Your task to perform on an android device: delete the emails in spam in the gmail app Image 0: 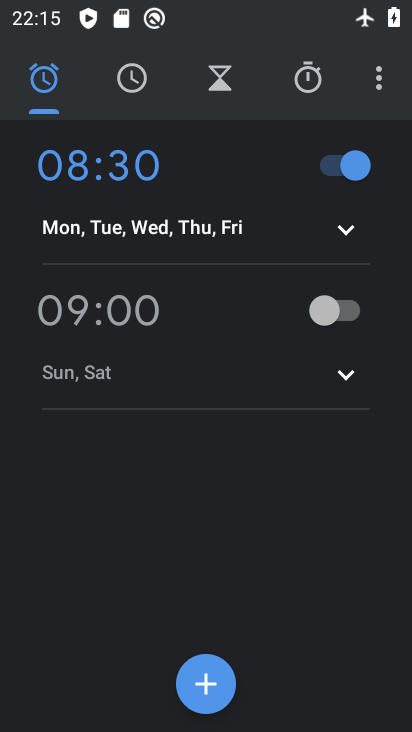
Step 0: press home button
Your task to perform on an android device: delete the emails in spam in the gmail app Image 1: 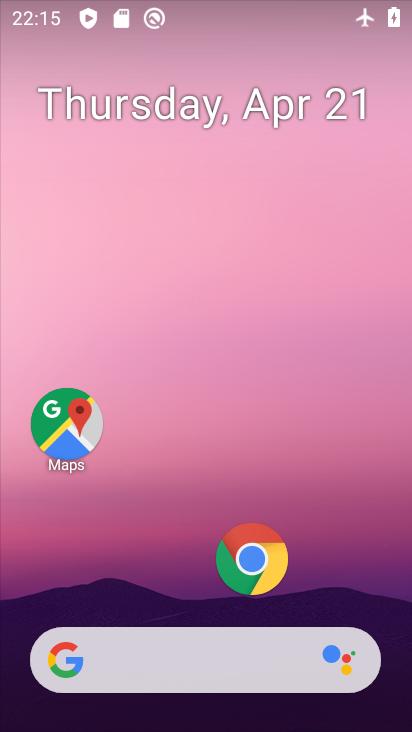
Step 1: drag from (138, 609) to (179, 163)
Your task to perform on an android device: delete the emails in spam in the gmail app Image 2: 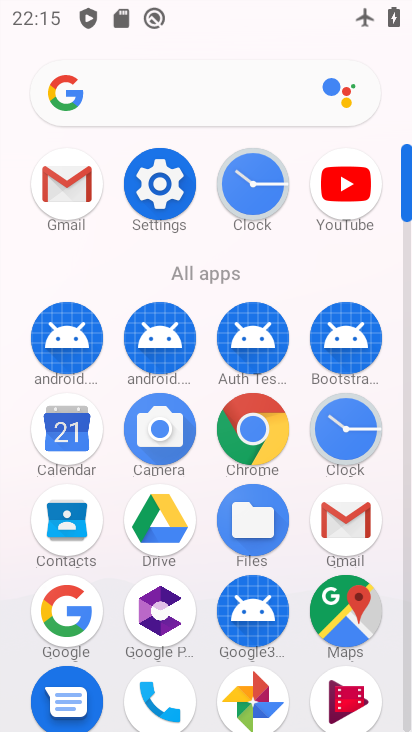
Step 2: click (357, 525)
Your task to perform on an android device: delete the emails in spam in the gmail app Image 3: 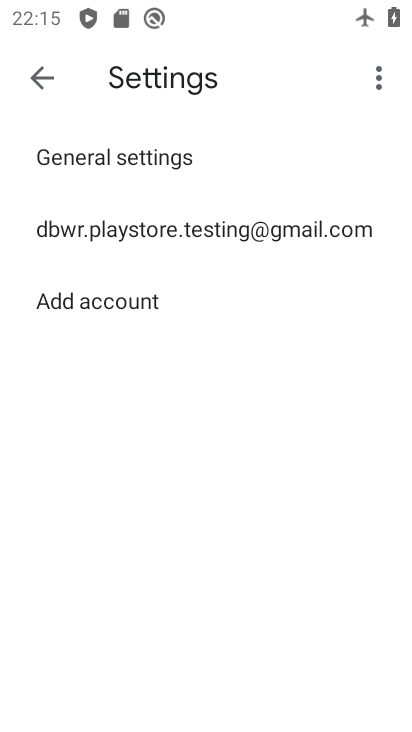
Step 3: click (195, 235)
Your task to perform on an android device: delete the emails in spam in the gmail app Image 4: 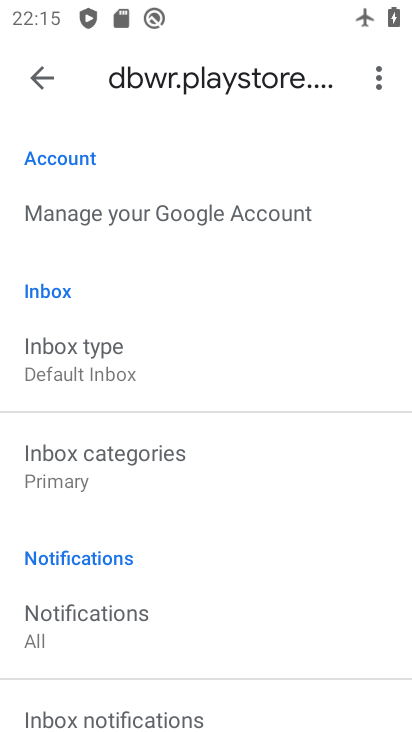
Step 4: drag from (118, 539) to (177, 272)
Your task to perform on an android device: delete the emails in spam in the gmail app Image 5: 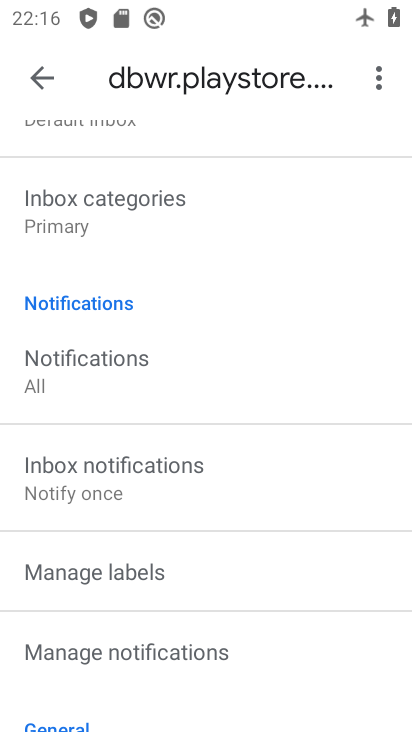
Step 5: click (38, 84)
Your task to perform on an android device: delete the emails in spam in the gmail app Image 6: 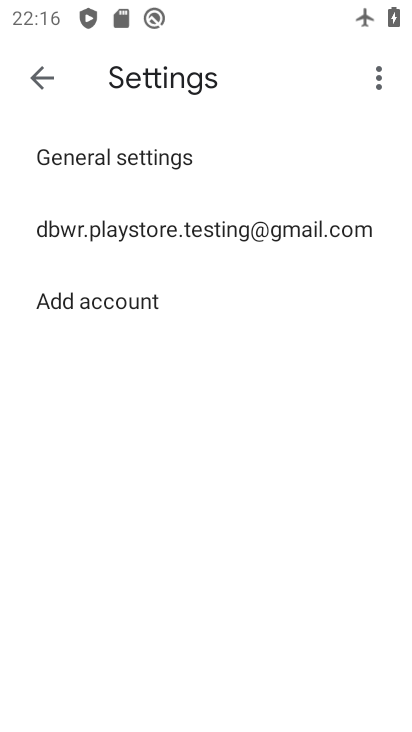
Step 6: click (31, 74)
Your task to perform on an android device: delete the emails in spam in the gmail app Image 7: 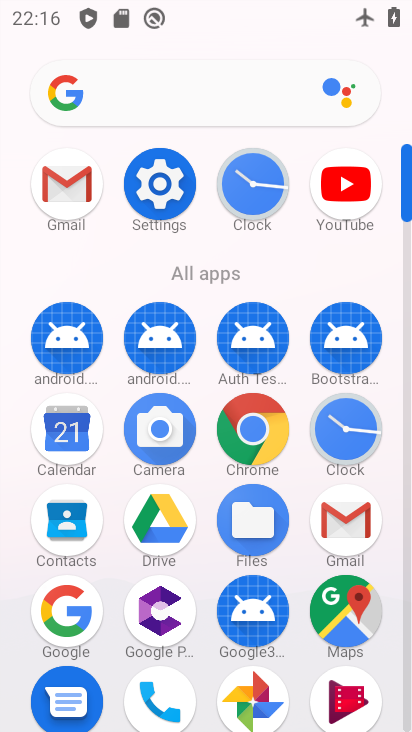
Step 7: press home button
Your task to perform on an android device: delete the emails in spam in the gmail app Image 8: 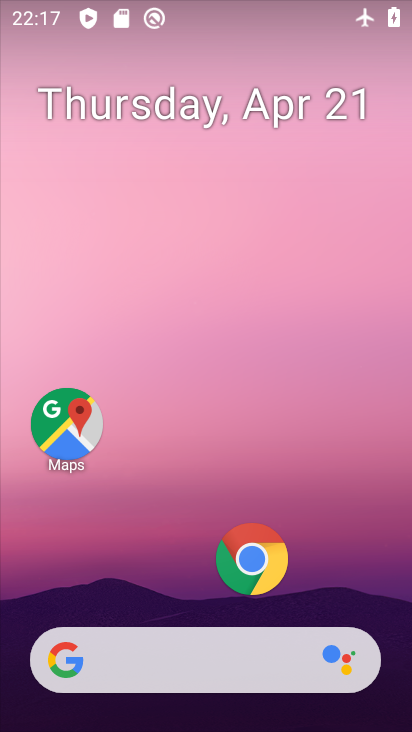
Step 8: drag from (110, 596) to (65, 55)
Your task to perform on an android device: delete the emails in spam in the gmail app Image 9: 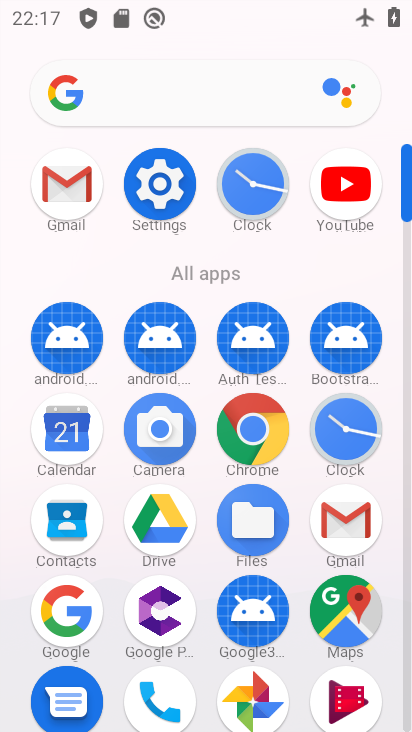
Step 9: click (352, 528)
Your task to perform on an android device: delete the emails in spam in the gmail app Image 10: 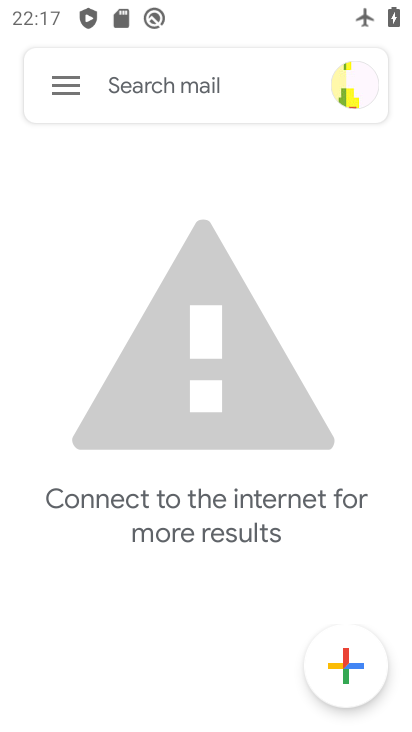
Step 10: click (55, 74)
Your task to perform on an android device: delete the emails in spam in the gmail app Image 11: 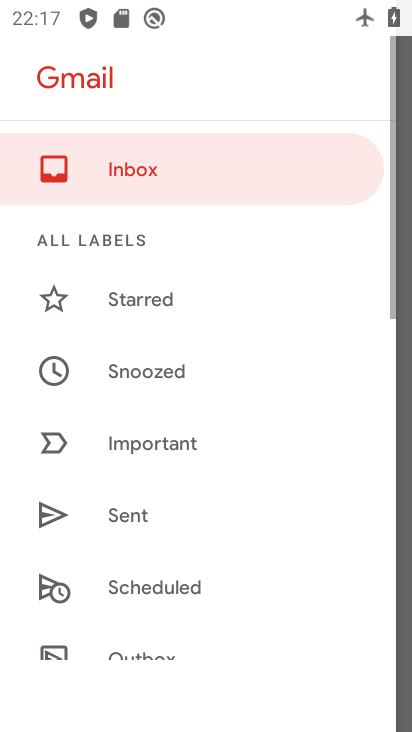
Step 11: drag from (134, 453) to (175, 85)
Your task to perform on an android device: delete the emails in spam in the gmail app Image 12: 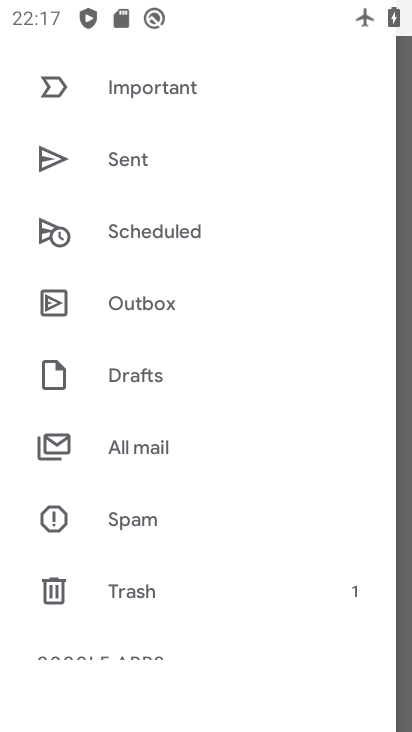
Step 12: click (131, 447)
Your task to perform on an android device: delete the emails in spam in the gmail app Image 13: 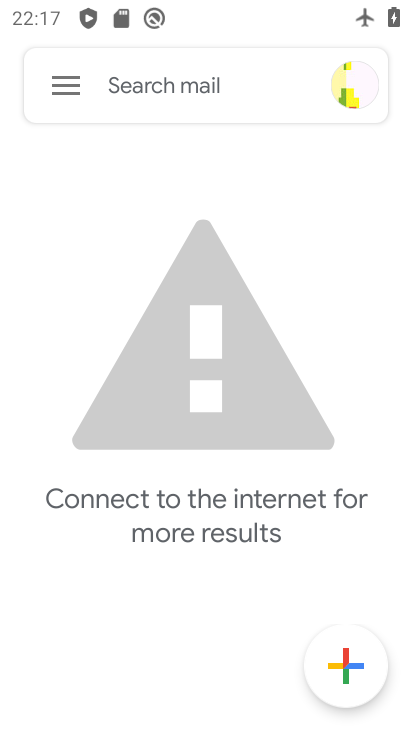
Step 13: task complete